Your task to perform on an android device: all mails in gmail Image 0: 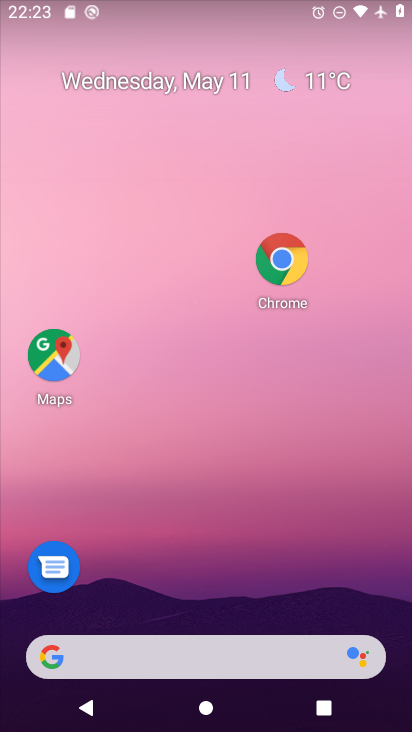
Step 0: drag from (140, 657) to (262, 207)
Your task to perform on an android device: all mails in gmail Image 1: 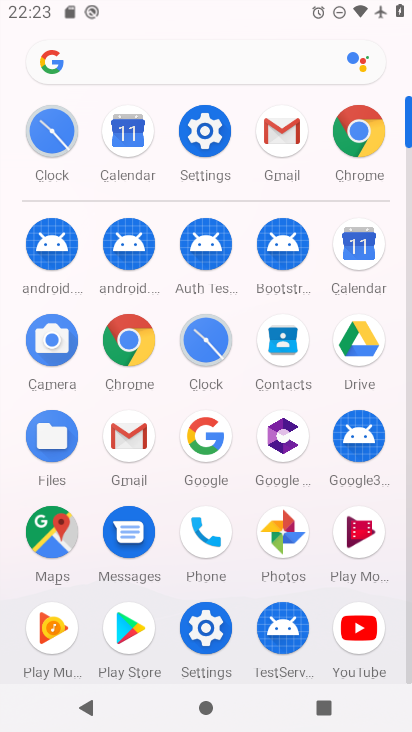
Step 1: click (282, 144)
Your task to perform on an android device: all mails in gmail Image 2: 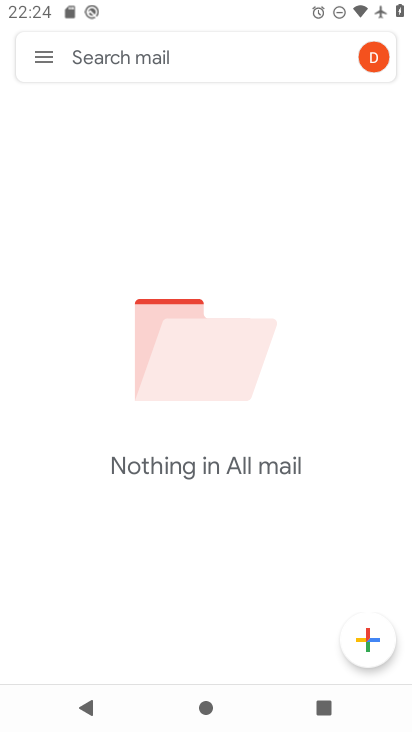
Step 2: task complete